Your task to perform on an android device: What's the price of the TCL TV? Image 0: 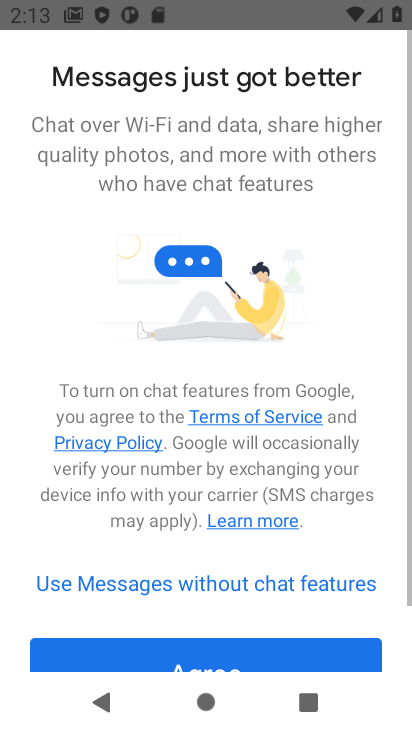
Step 0: press home button
Your task to perform on an android device: What's the price of the TCL TV? Image 1: 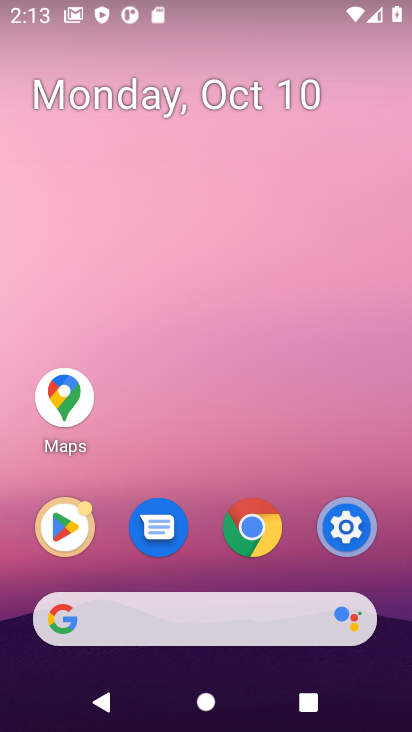
Step 1: click (250, 622)
Your task to perform on an android device: What's the price of the TCL TV? Image 2: 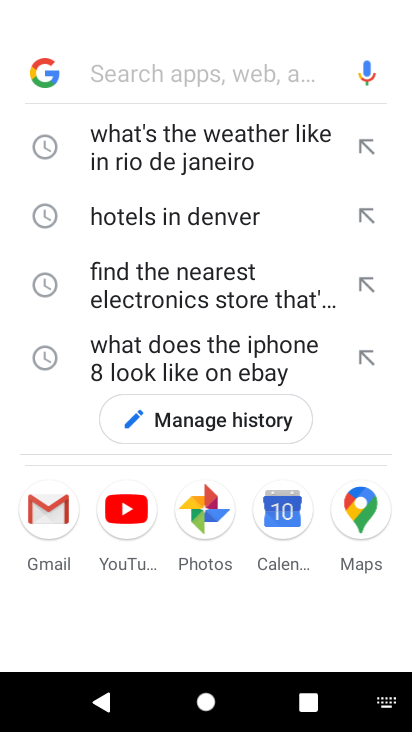
Step 2: type "What's the price of the TCL TV?"
Your task to perform on an android device: What's the price of the TCL TV? Image 3: 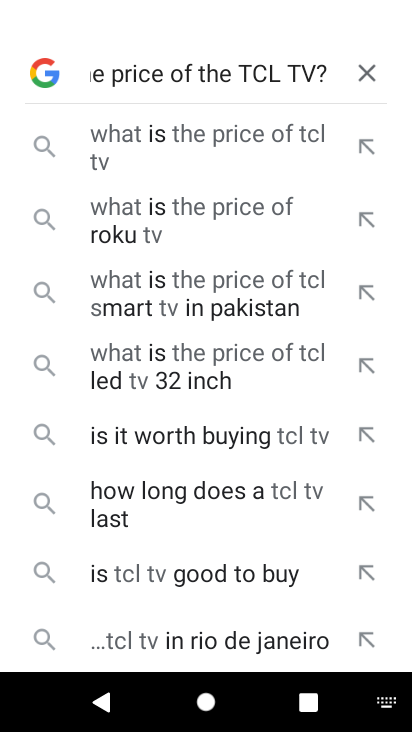
Step 3: press enter
Your task to perform on an android device: What's the price of the TCL TV? Image 4: 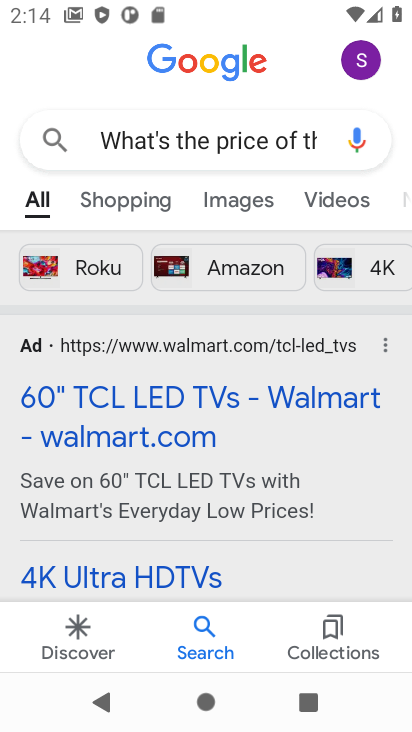
Step 4: drag from (276, 534) to (286, 327)
Your task to perform on an android device: What's the price of the TCL TV? Image 5: 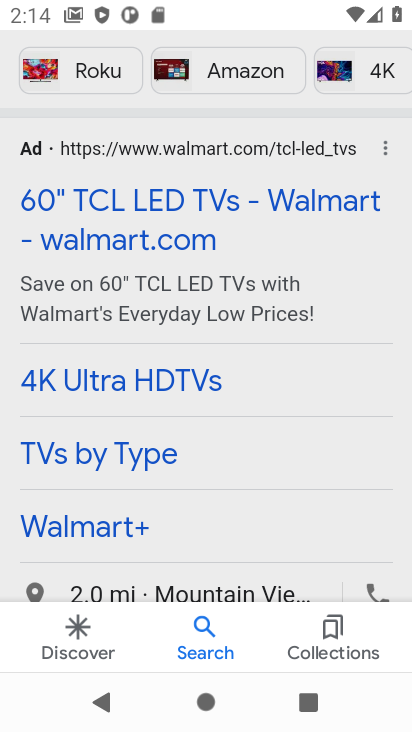
Step 5: drag from (311, 489) to (310, 236)
Your task to perform on an android device: What's the price of the TCL TV? Image 6: 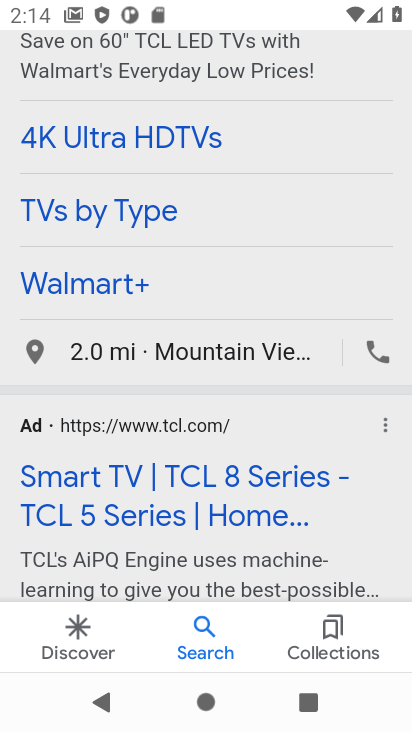
Step 6: drag from (274, 432) to (283, 302)
Your task to perform on an android device: What's the price of the TCL TV? Image 7: 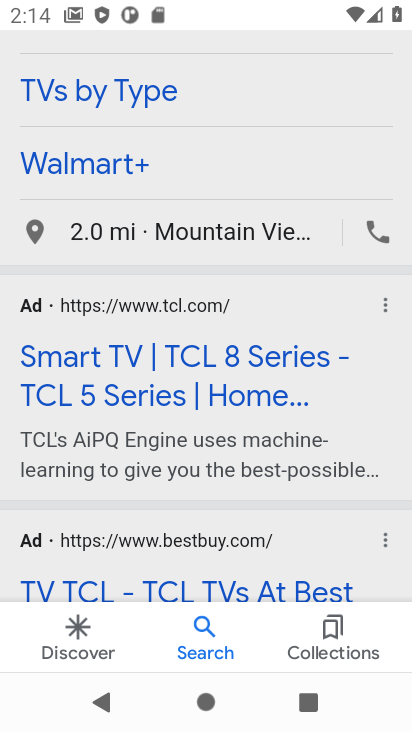
Step 7: drag from (279, 148) to (262, 384)
Your task to perform on an android device: What's the price of the TCL TV? Image 8: 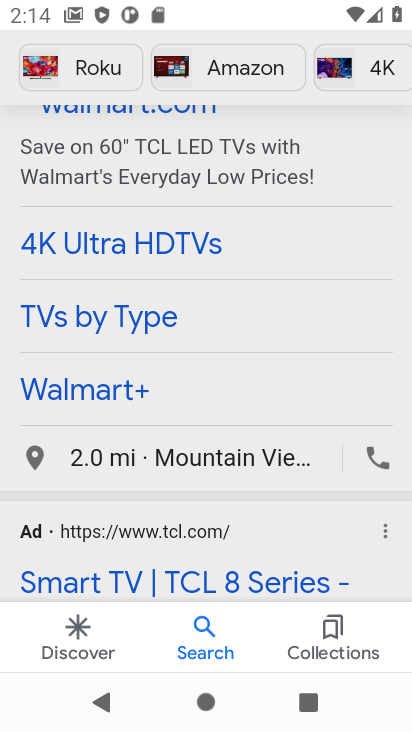
Step 8: drag from (256, 169) to (264, 467)
Your task to perform on an android device: What's the price of the TCL TV? Image 9: 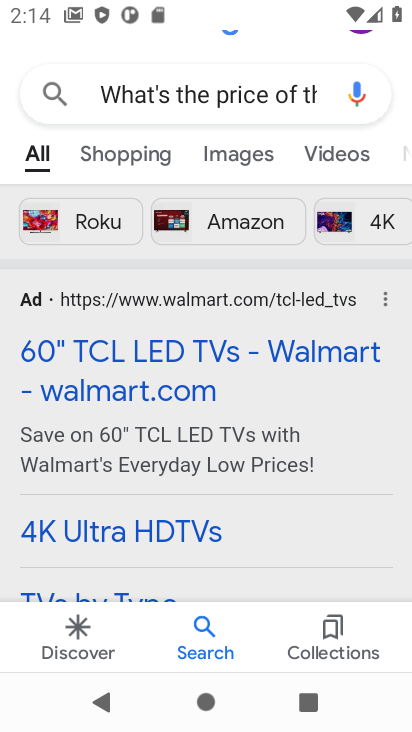
Step 9: click (171, 353)
Your task to perform on an android device: What's the price of the TCL TV? Image 10: 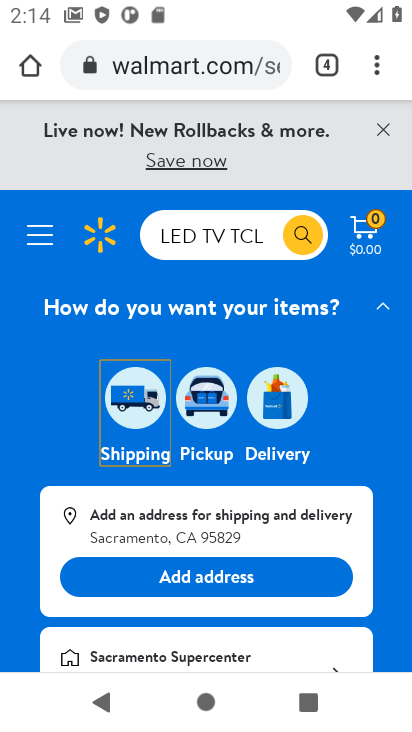
Step 10: drag from (375, 520) to (390, 212)
Your task to perform on an android device: What's the price of the TCL TV? Image 11: 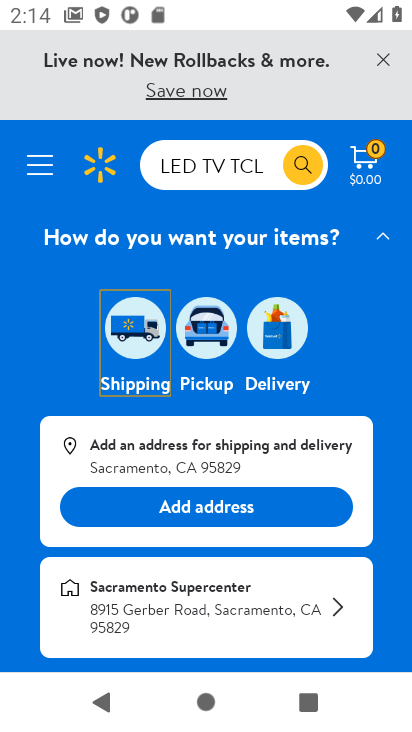
Step 11: drag from (394, 533) to (392, 154)
Your task to perform on an android device: What's the price of the TCL TV? Image 12: 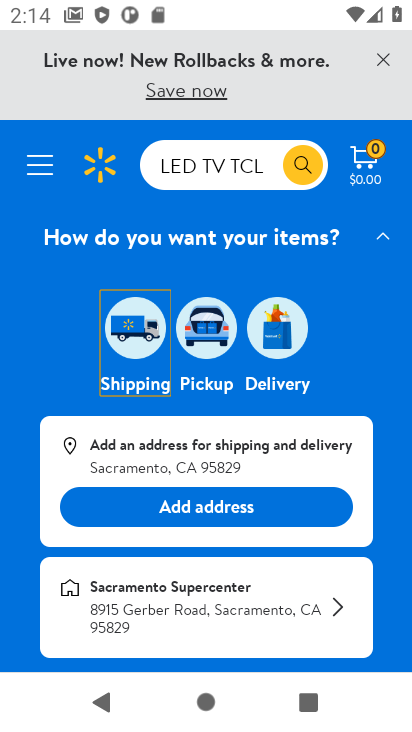
Step 12: click (385, 56)
Your task to perform on an android device: What's the price of the TCL TV? Image 13: 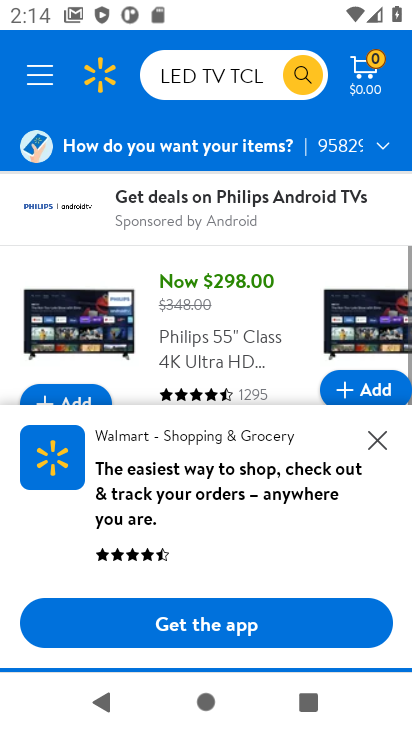
Step 13: click (378, 441)
Your task to perform on an android device: What's the price of the TCL TV? Image 14: 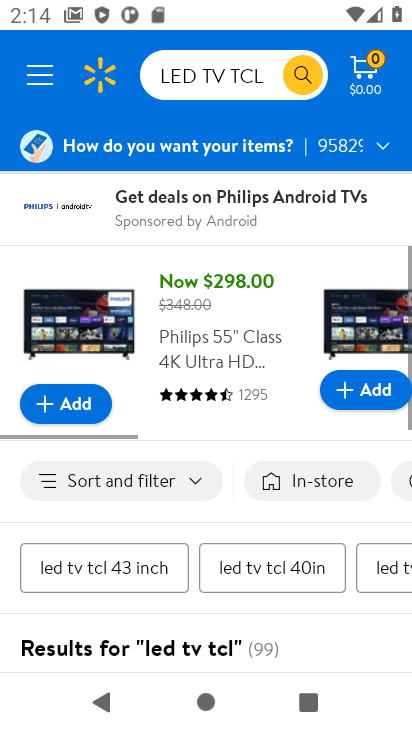
Step 14: task complete